Your task to perform on an android device: turn off location Image 0: 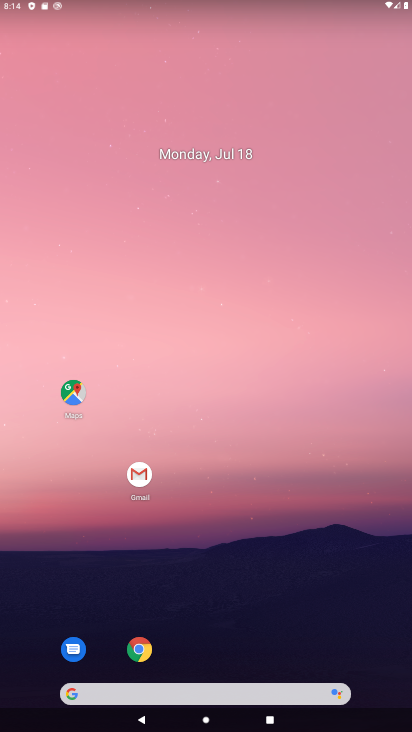
Step 0: drag from (281, 595) to (230, 299)
Your task to perform on an android device: turn off location Image 1: 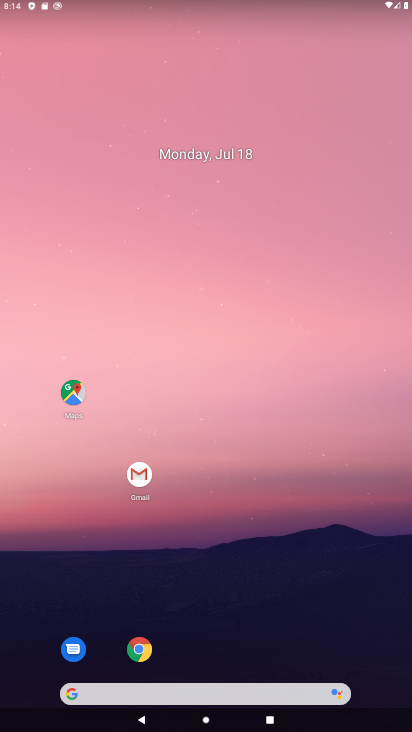
Step 1: drag from (257, 448) to (246, 118)
Your task to perform on an android device: turn off location Image 2: 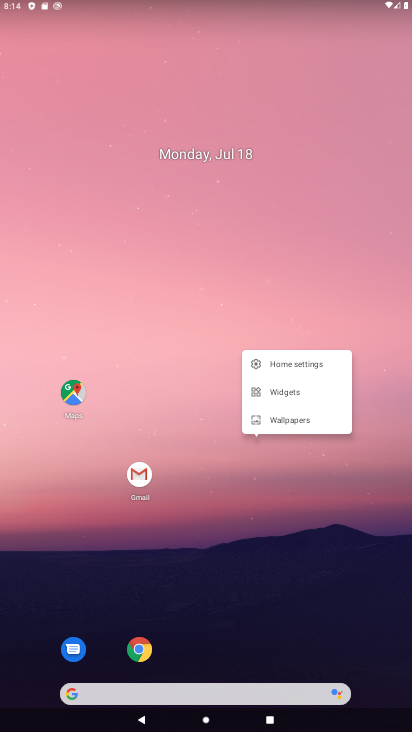
Step 2: click (266, 523)
Your task to perform on an android device: turn off location Image 3: 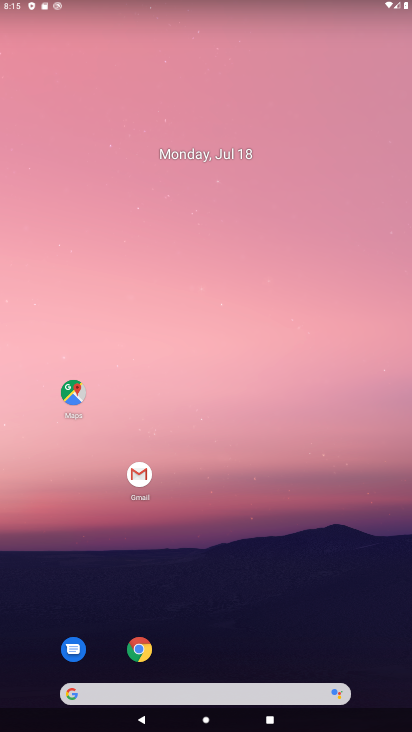
Step 3: click (266, 523)
Your task to perform on an android device: turn off location Image 4: 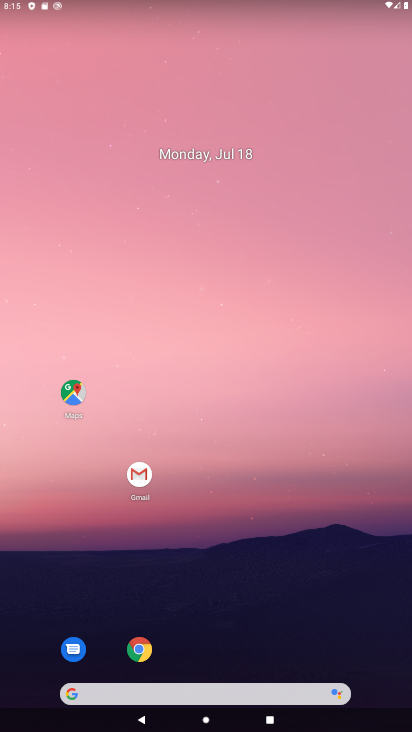
Step 4: drag from (266, 523) to (263, 262)
Your task to perform on an android device: turn off location Image 5: 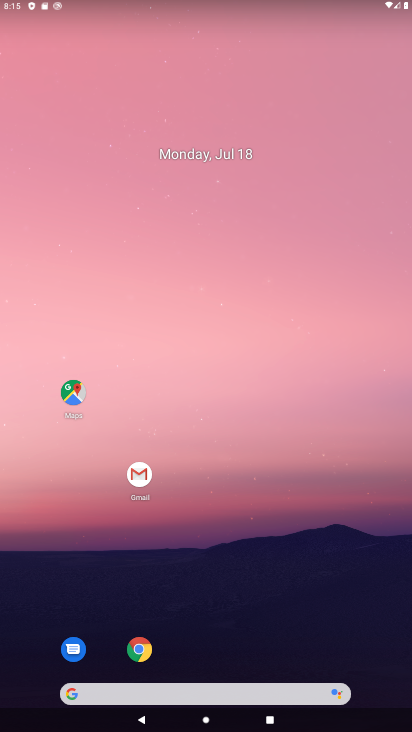
Step 5: drag from (275, 381) to (282, 64)
Your task to perform on an android device: turn off location Image 6: 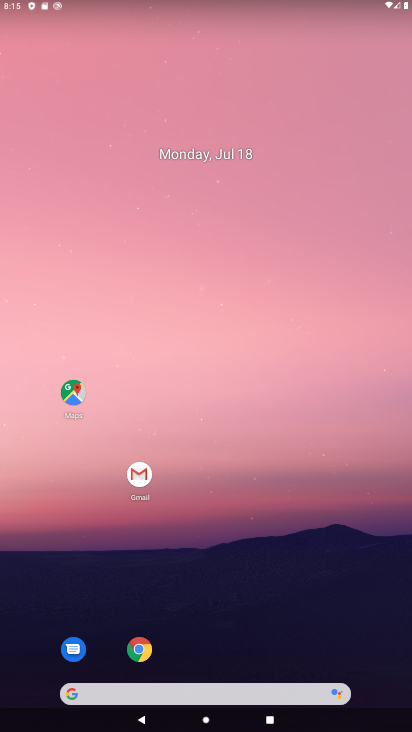
Step 6: drag from (257, 486) to (253, 70)
Your task to perform on an android device: turn off location Image 7: 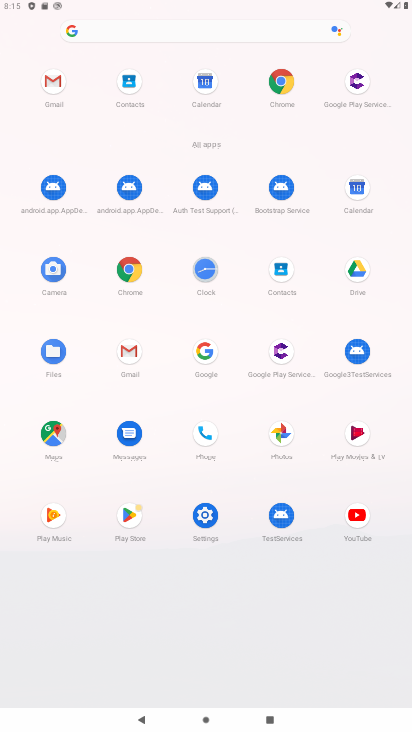
Step 7: click (201, 518)
Your task to perform on an android device: turn off location Image 8: 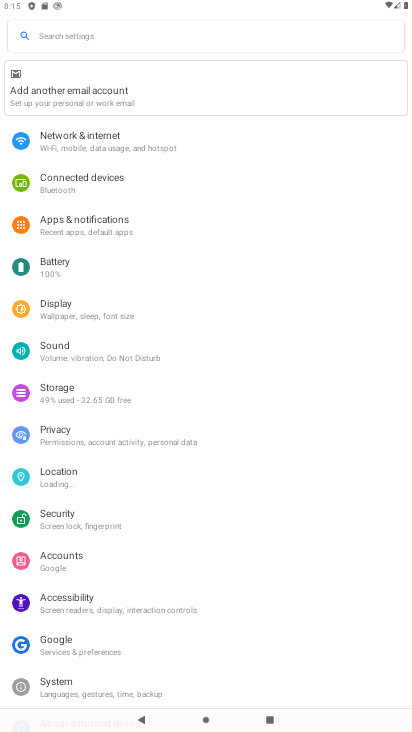
Step 8: click (83, 481)
Your task to perform on an android device: turn off location Image 9: 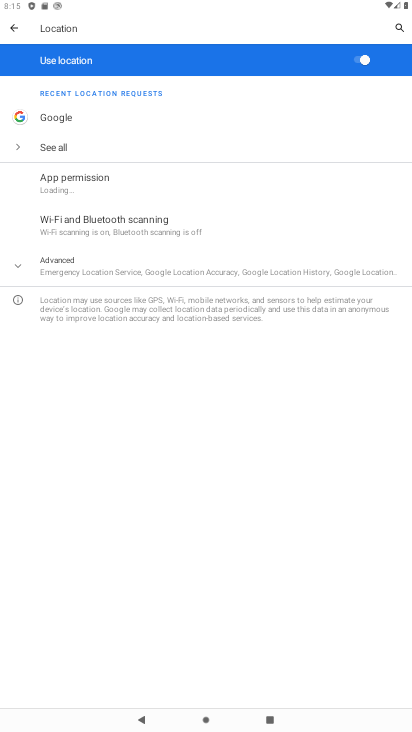
Step 9: click (367, 54)
Your task to perform on an android device: turn off location Image 10: 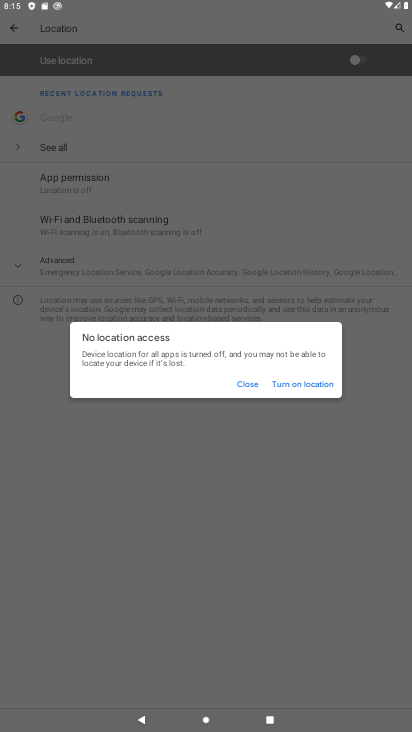
Step 10: task complete